Your task to perform on an android device: Open Yahoo.com Image 0: 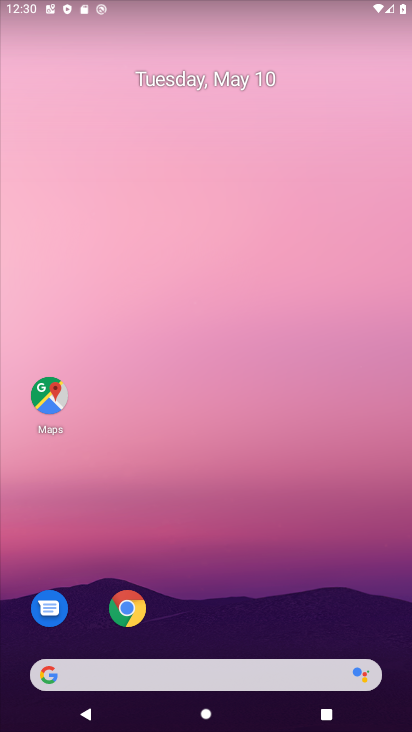
Step 0: click (125, 606)
Your task to perform on an android device: Open Yahoo.com Image 1: 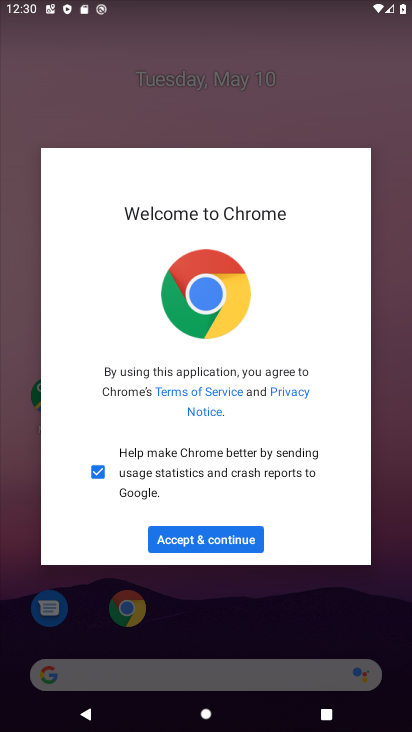
Step 1: click (212, 524)
Your task to perform on an android device: Open Yahoo.com Image 2: 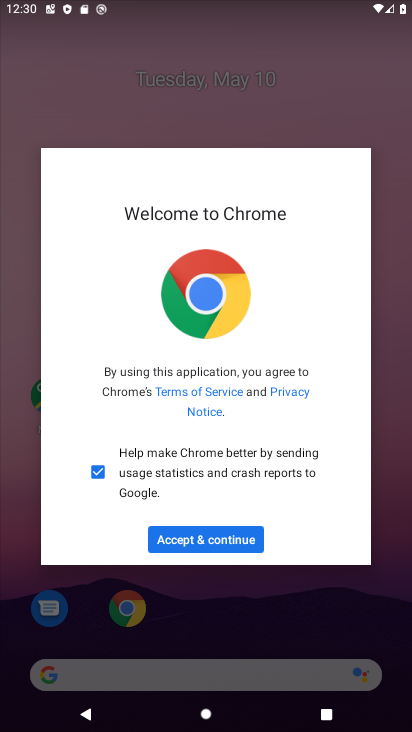
Step 2: click (218, 540)
Your task to perform on an android device: Open Yahoo.com Image 3: 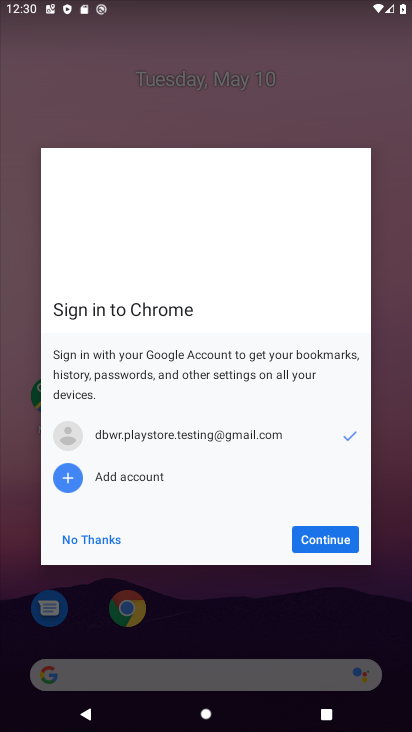
Step 3: click (320, 542)
Your task to perform on an android device: Open Yahoo.com Image 4: 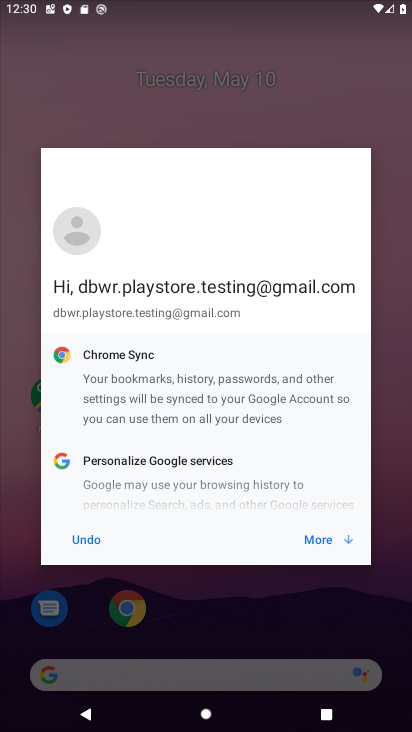
Step 4: click (320, 542)
Your task to perform on an android device: Open Yahoo.com Image 5: 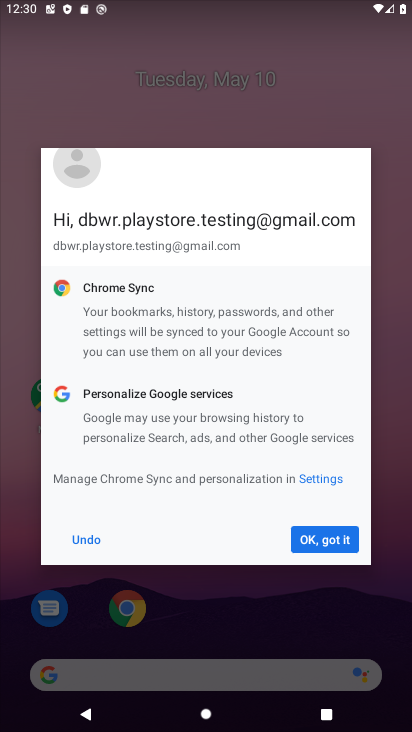
Step 5: click (320, 542)
Your task to perform on an android device: Open Yahoo.com Image 6: 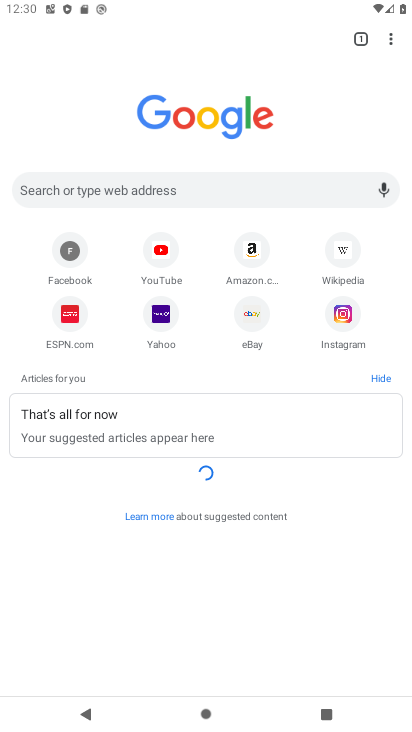
Step 6: click (163, 320)
Your task to perform on an android device: Open Yahoo.com Image 7: 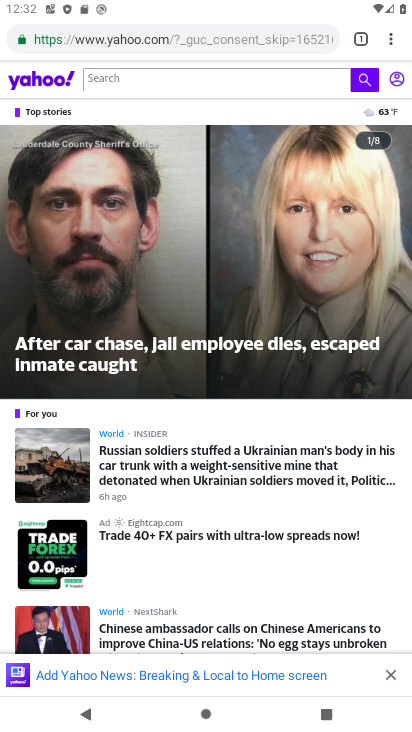
Step 7: task complete